Your task to perform on an android device: Open privacy settings Image 0: 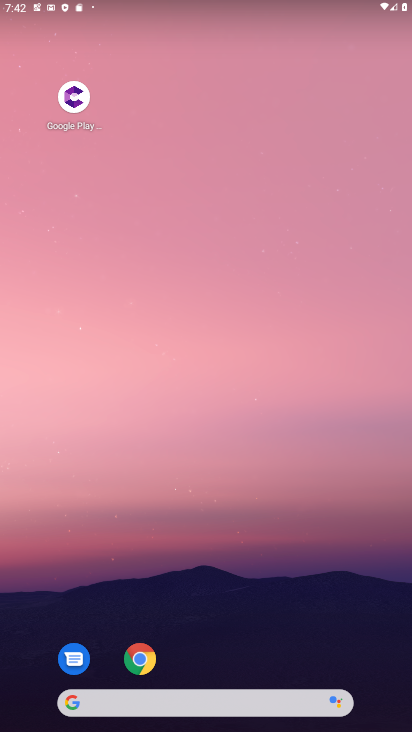
Step 0: drag from (185, 539) to (146, 202)
Your task to perform on an android device: Open privacy settings Image 1: 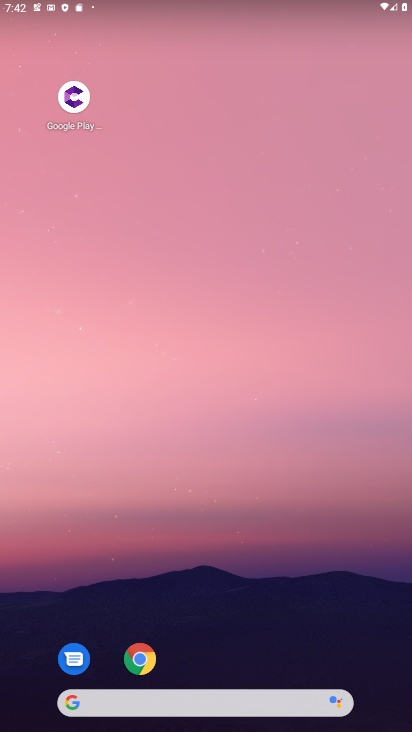
Step 1: click (175, 8)
Your task to perform on an android device: Open privacy settings Image 2: 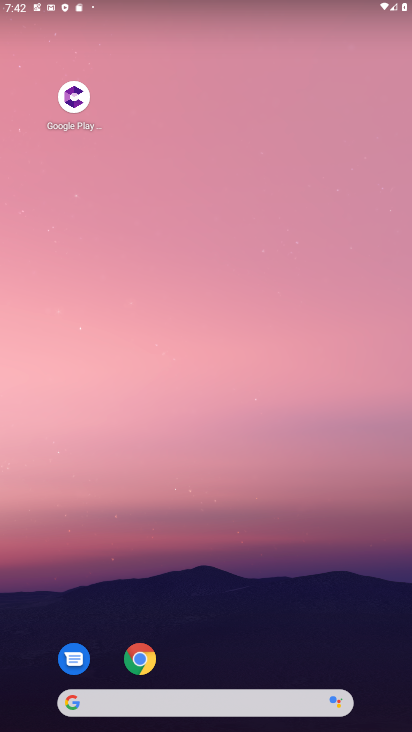
Step 2: drag from (235, 286) to (235, 193)
Your task to perform on an android device: Open privacy settings Image 3: 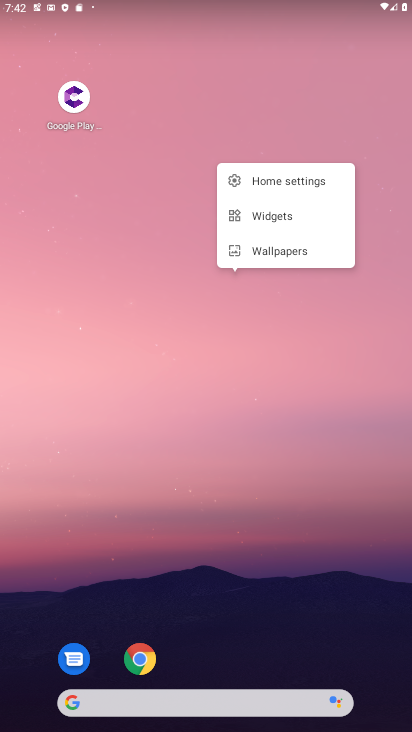
Step 3: drag from (227, 669) to (163, 133)
Your task to perform on an android device: Open privacy settings Image 4: 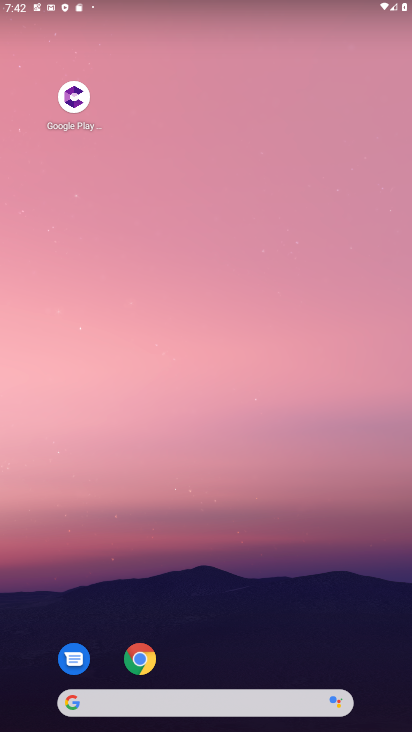
Step 4: click (135, 122)
Your task to perform on an android device: Open privacy settings Image 5: 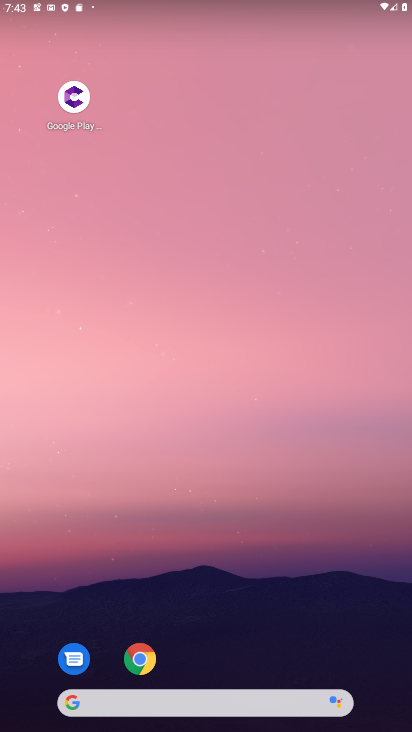
Step 5: drag from (177, 252) to (263, 20)
Your task to perform on an android device: Open privacy settings Image 6: 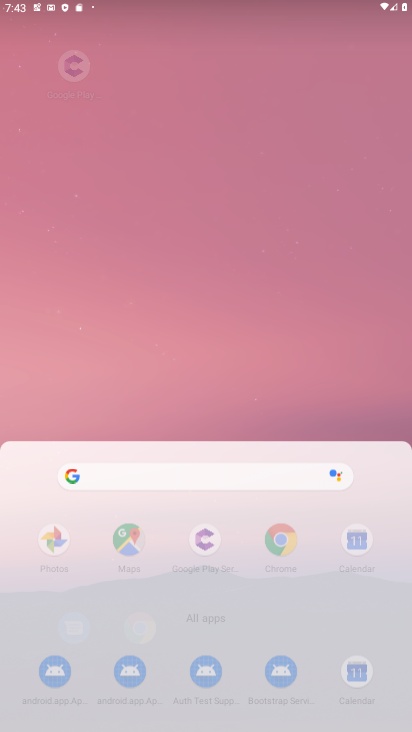
Step 6: drag from (283, 566) to (224, 31)
Your task to perform on an android device: Open privacy settings Image 7: 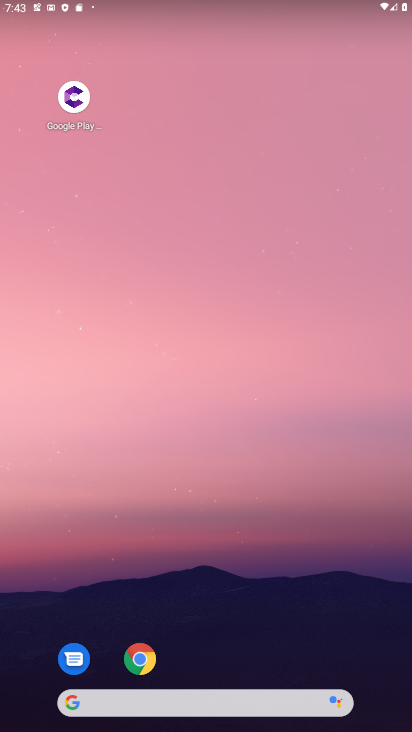
Step 7: drag from (244, 366) to (239, 41)
Your task to perform on an android device: Open privacy settings Image 8: 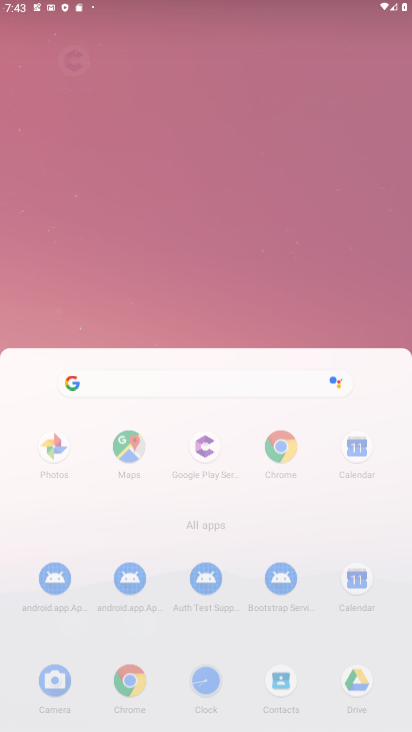
Step 8: drag from (172, 688) to (163, 23)
Your task to perform on an android device: Open privacy settings Image 9: 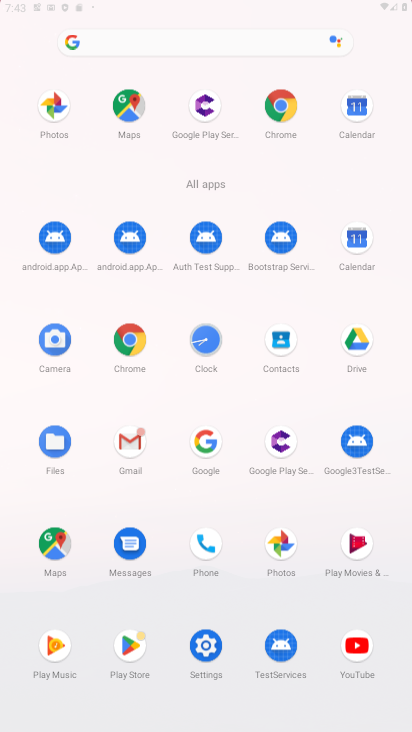
Step 9: drag from (266, 476) to (229, 15)
Your task to perform on an android device: Open privacy settings Image 10: 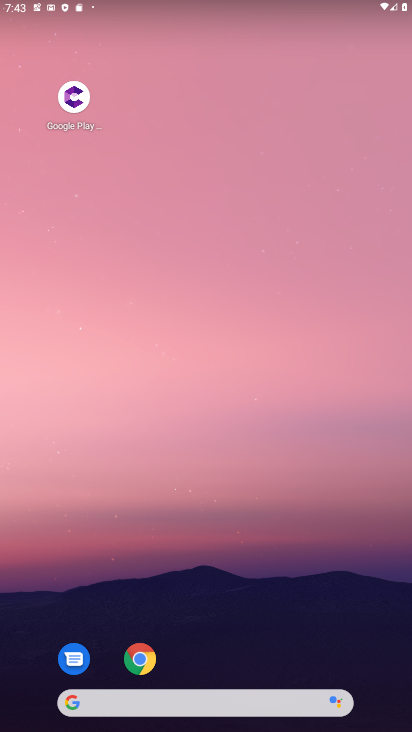
Step 10: drag from (229, 603) to (214, 237)
Your task to perform on an android device: Open privacy settings Image 11: 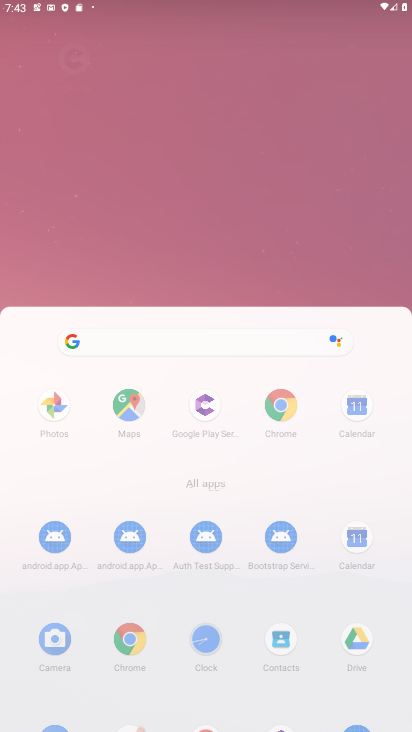
Step 11: click (229, 55)
Your task to perform on an android device: Open privacy settings Image 12: 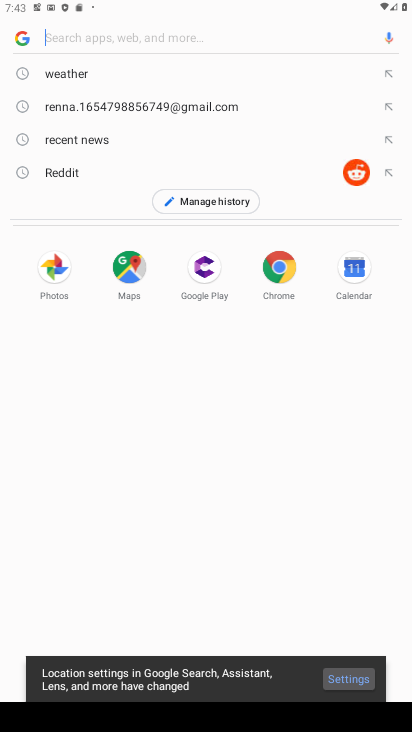
Step 12: press back button
Your task to perform on an android device: Open privacy settings Image 13: 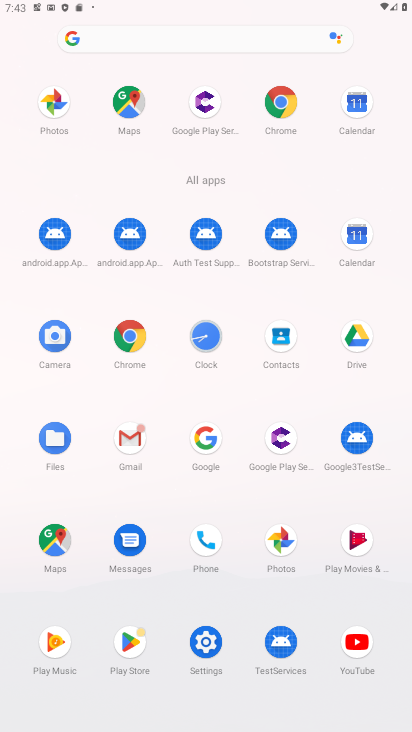
Step 13: click (206, 649)
Your task to perform on an android device: Open privacy settings Image 14: 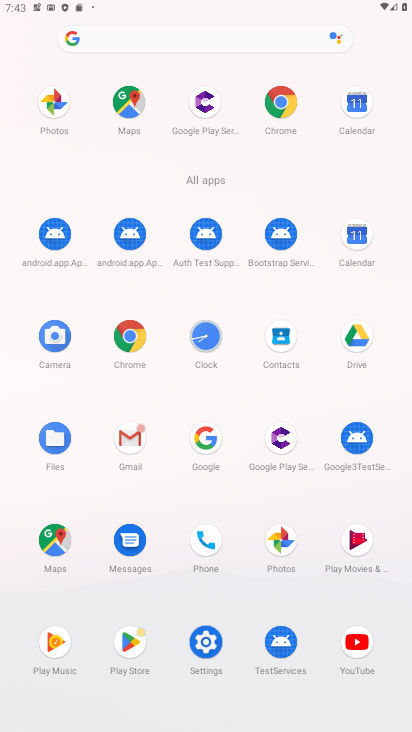
Step 14: click (206, 649)
Your task to perform on an android device: Open privacy settings Image 15: 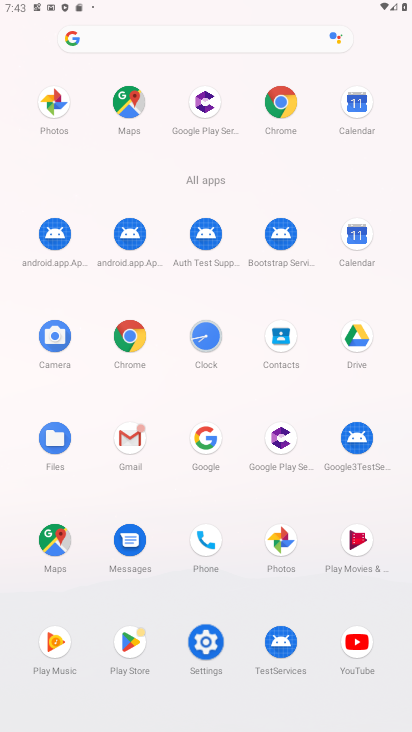
Step 15: click (210, 649)
Your task to perform on an android device: Open privacy settings Image 16: 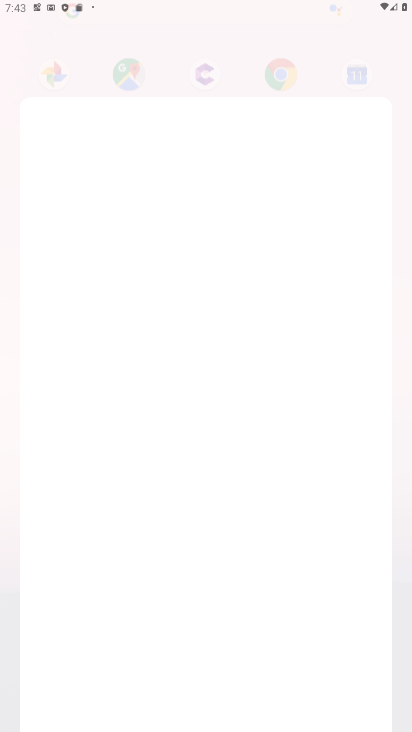
Step 16: click (219, 657)
Your task to perform on an android device: Open privacy settings Image 17: 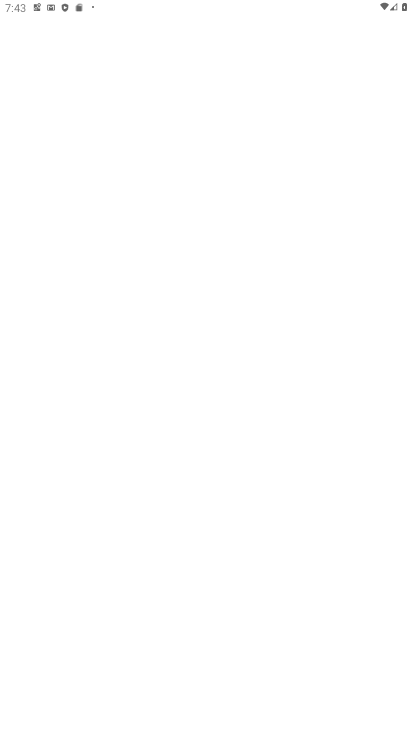
Step 17: click (219, 658)
Your task to perform on an android device: Open privacy settings Image 18: 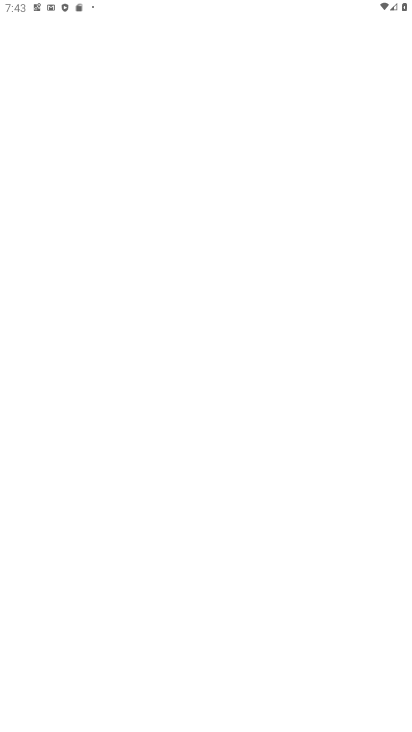
Step 18: click (218, 658)
Your task to perform on an android device: Open privacy settings Image 19: 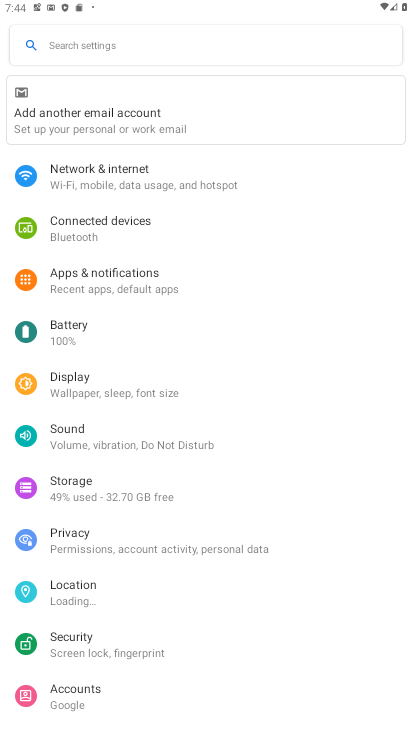
Step 19: click (72, 536)
Your task to perform on an android device: Open privacy settings Image 20: 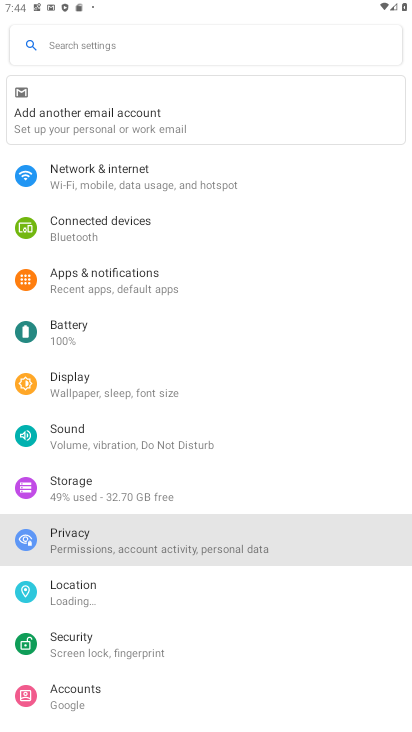
Step 20: click (73, 530)
Your task to perform on an android device: Open privacy settings Image 21: 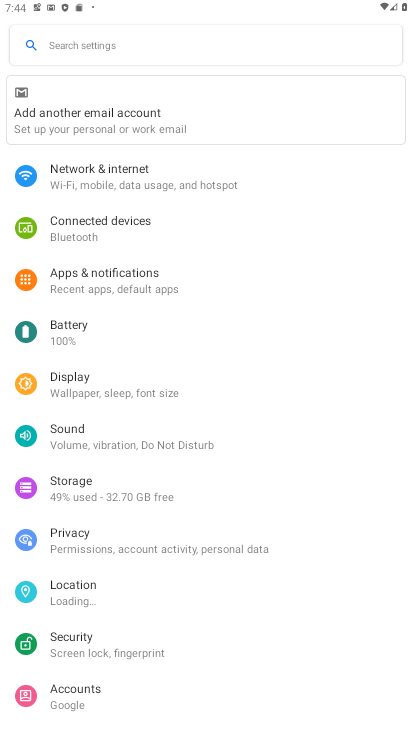
Step 21: click (76, 529)
Your task to perform on an android device: Open privacy settings Image 22: 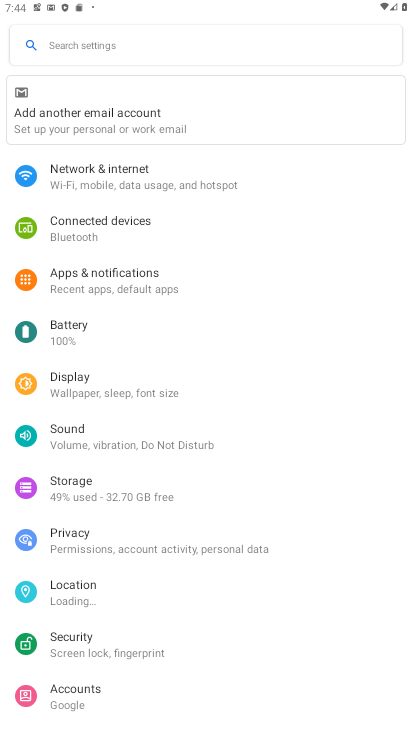
Step 22: click (82, 525)
Your task to perform on an android device: Open privacy settings Image 23: 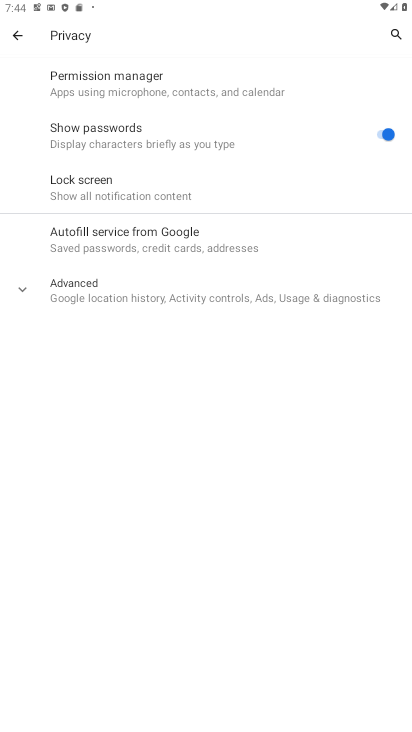
Step 23: click (15, 35)
Your task to perform on an android device: Open privacy settings Image 24: 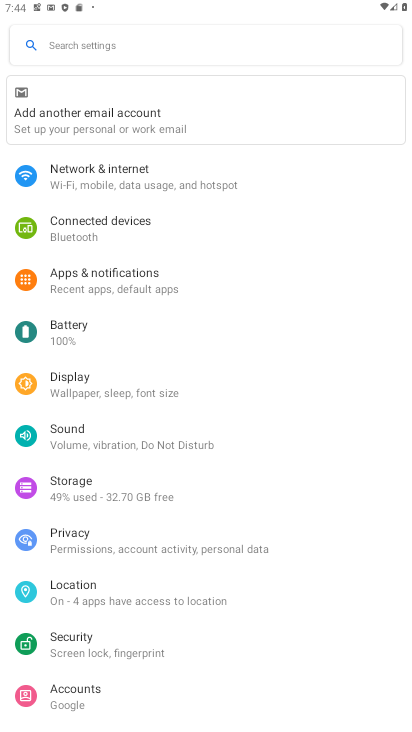
Step 24: task complete